Your task to perform on an android device: Show me popular games on the Play Store Image 0: 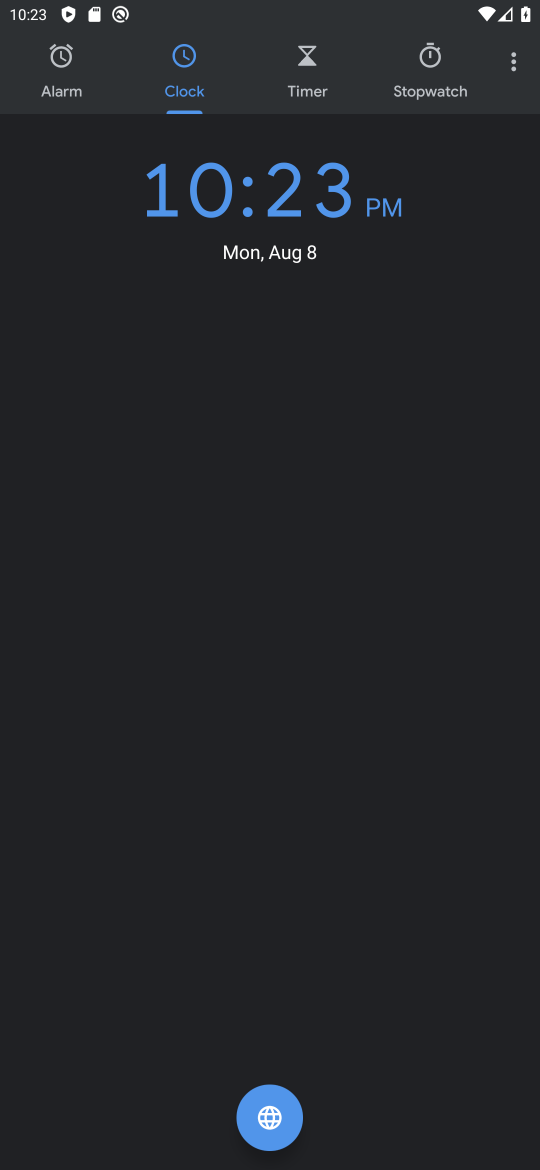
Step 0: task complete